Your task to perform on an android device: Show me popular games on the Play Store Image 0: 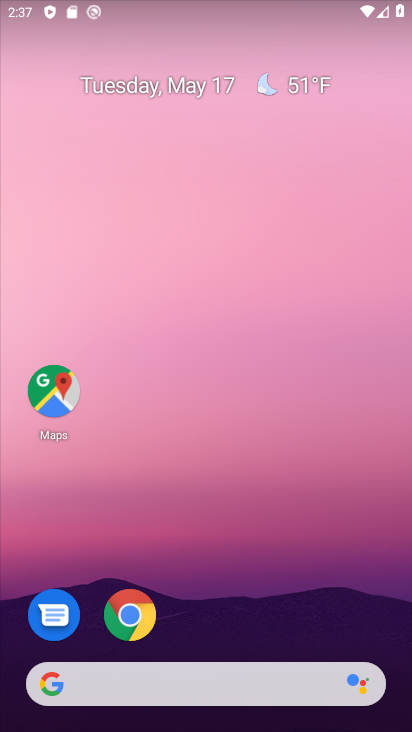
Step 0: drag from (212, 641) to (254, 11)
Your task to perform on an android device: Show me popular games on the Play Store Image 1: 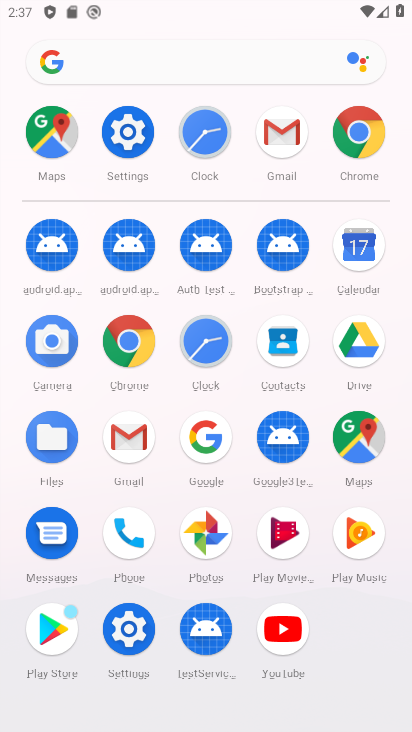
Step 1: click (48, 624)
Your task to perform on an android device: Show me popular games on the Play Store Image 2: 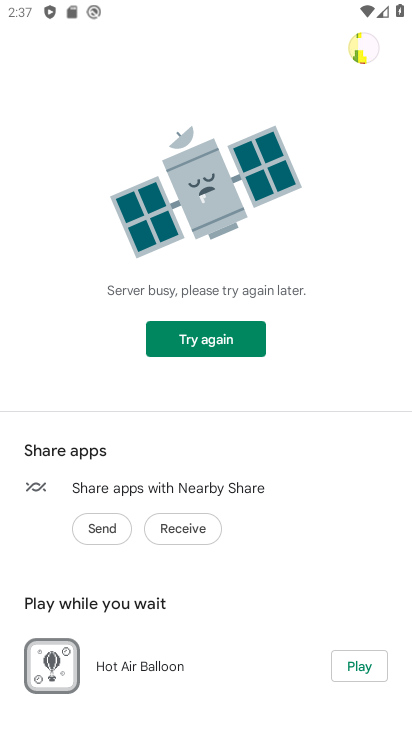
Step 2: task complete